Your task to perform on an android device: turn off location history Image 0: 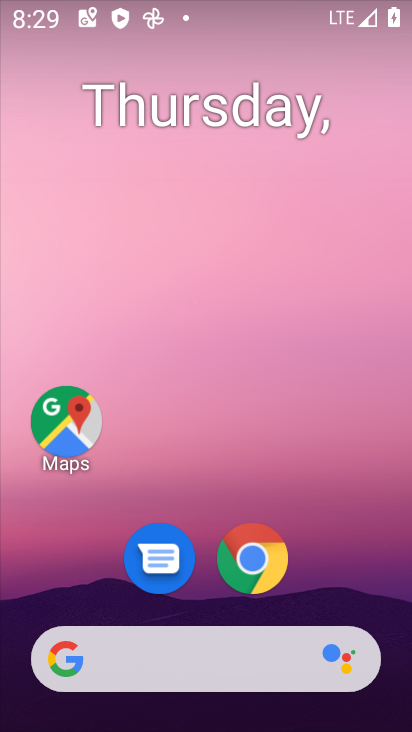
Step 0: drag from (130, 621) to (265, 208)
Your task to perform on an android device: turn off location history Image 1: 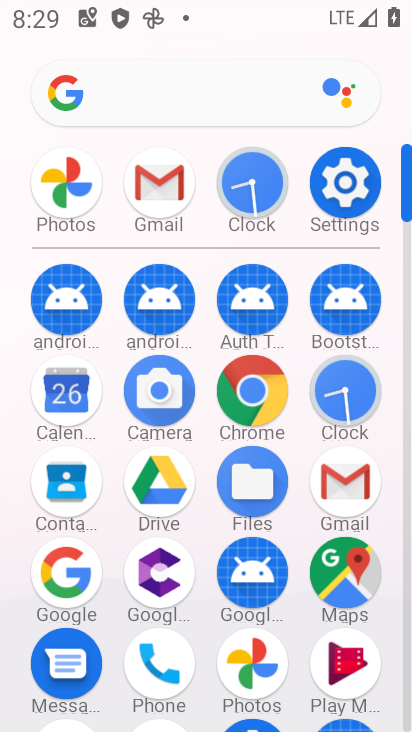
Step 1: click (336, 185)
Your task to perform on an android device: turn off location history Image 2: 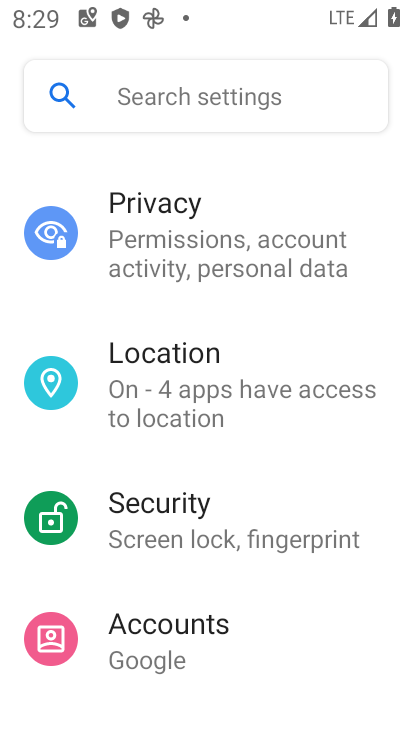
Step 2: click (168, 393)
Your task to perform on an android device: turn off location history Image 3: 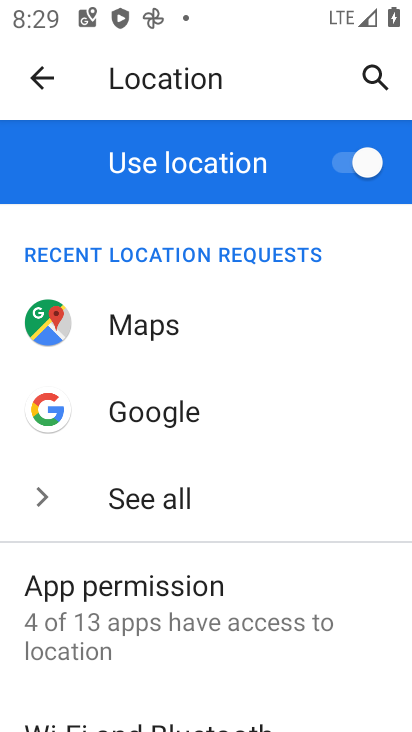
Step 3: drag from (141, 516) to (159, 121)
Your task to perform on an android device: turn off location history Image 4: 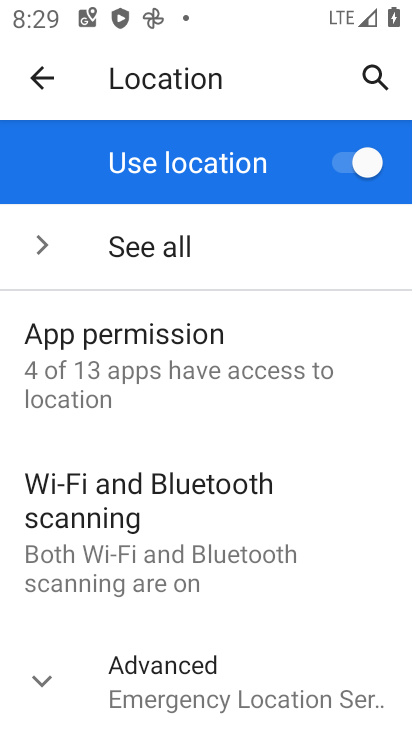
Step 4: click (173, 680)
Your task to perform on an android device: turn off location history Image 5: 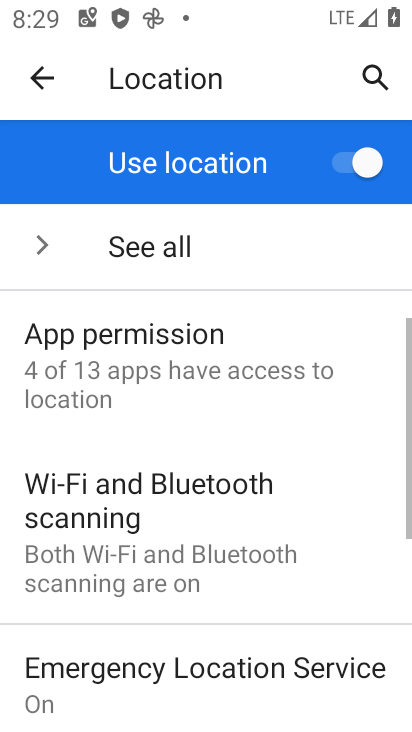
Step 5: drag from (269, 616) to (280, 119)
Your task to perform on an android device: turn off location history Image 6: 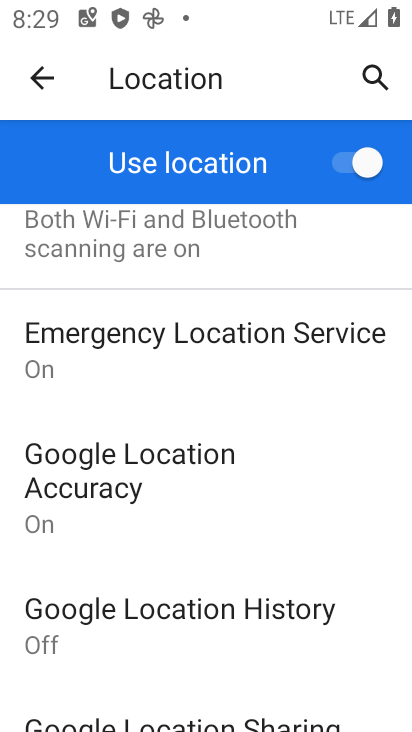
Step 6: click (179, 620)
Your task to perform on an android device: turn off location history Image 7: 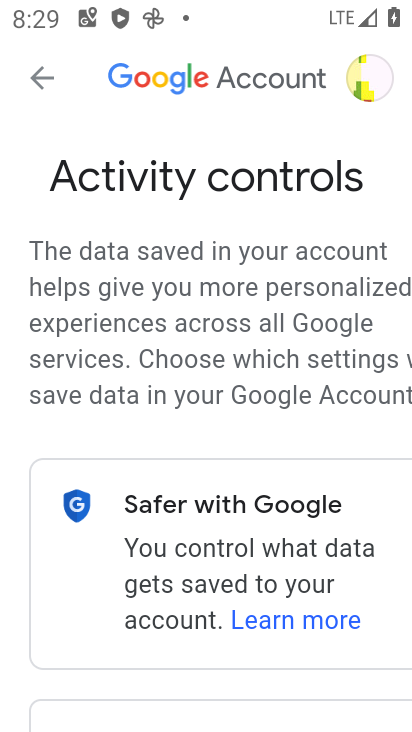
Step 7: task complete